Your task to perform on an android device: Open the calendar and show me this week's events Image 0: 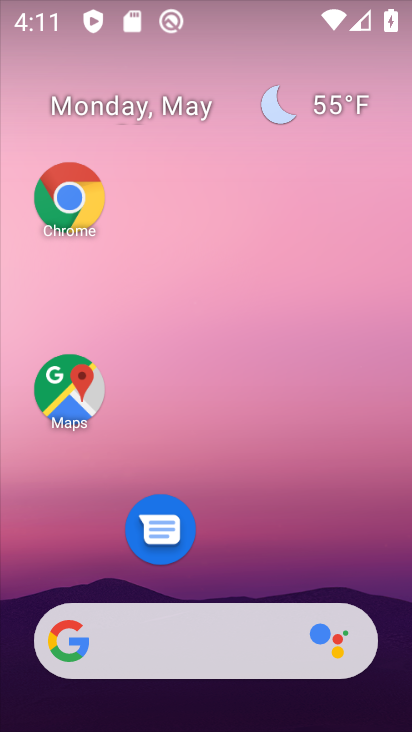
Step 0: drag from (229, 579) to (200, 62)
Your task to perform on an android device: Open the calendar and show me this week's events Image 1: 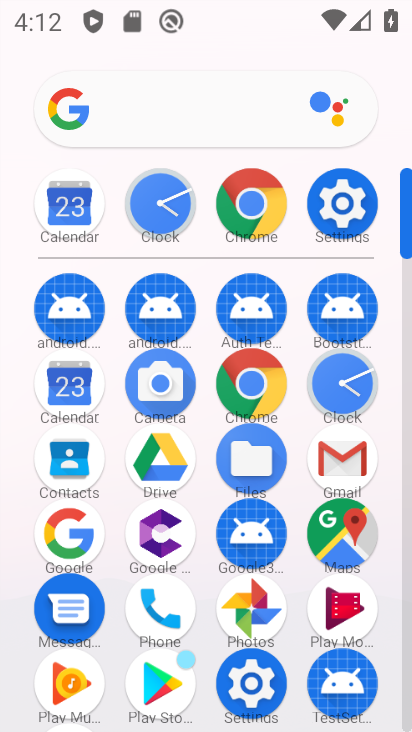
Step 1: click (80, 403)
Your task to perform on an android device: Open the calendar and show me this week's events Image 2: 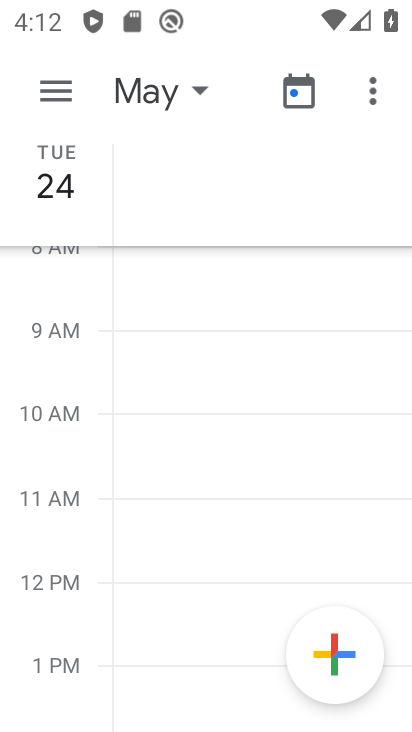
Step 2: press back button
Your task to perform on an android device: Open the calendar and show me this week's events Image 3: 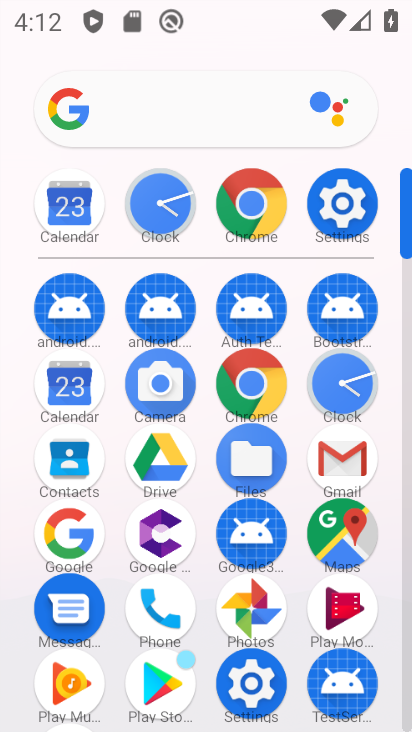
Step 3: click (68, 390)
Your task to perform on an android device: Open the calendar and show me this week's events Image 4: 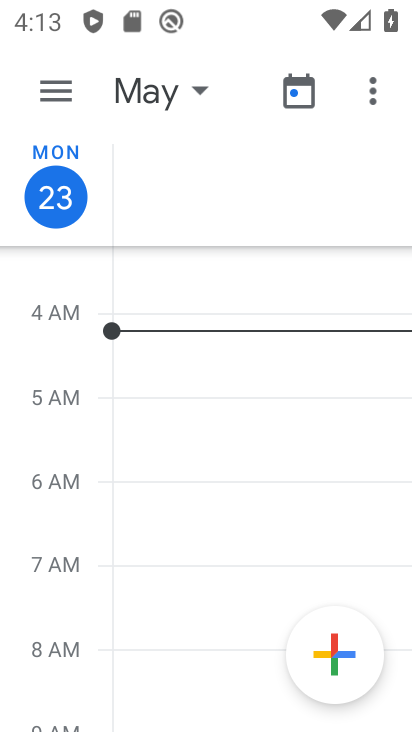
Step 4: click (158, 101)
Your task to perform on an android device: Open the calendar and show me this week's events Image 5: 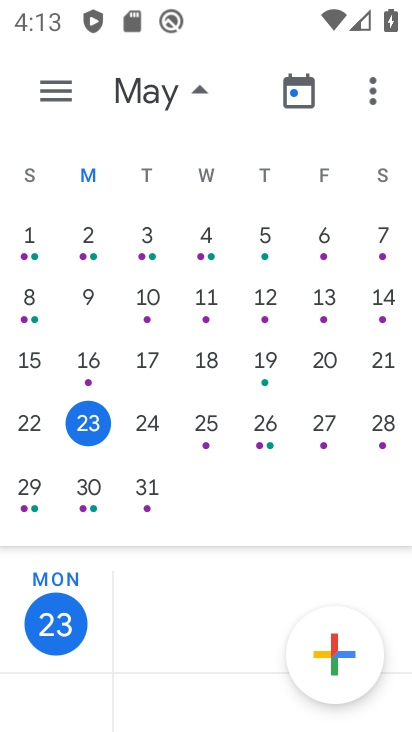
Step 5: click (82, 432)
Your task to perform on an android device: Open the calendar and show me this week's events Image 6: 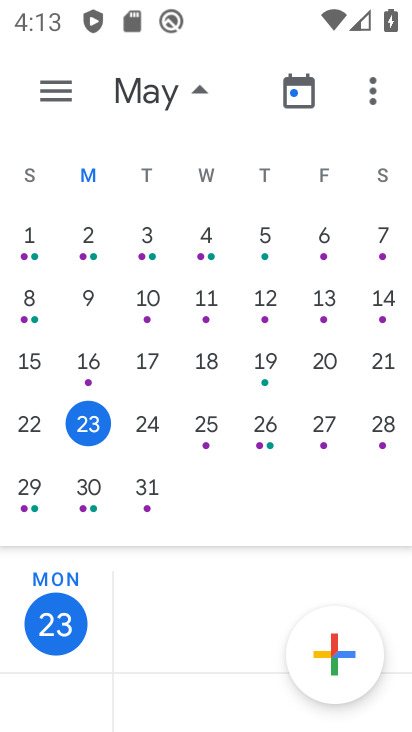
Step 6: task complete